Your task to perform on an android device: change the clock display to show seconds Image 0: 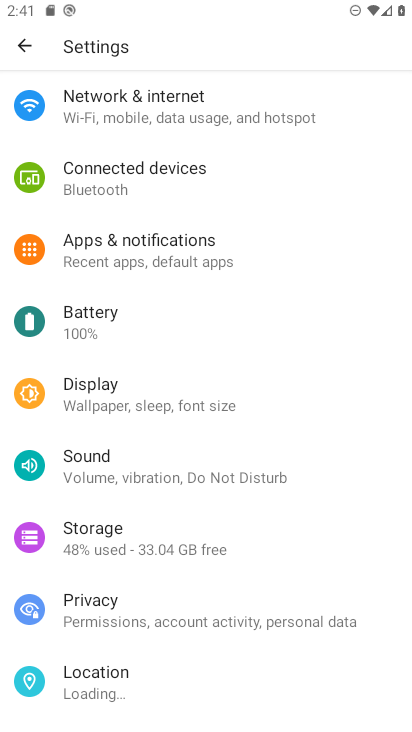
Step 0: press back button
Your task to perform on an android device: change the clock display to show seconds Image 1: 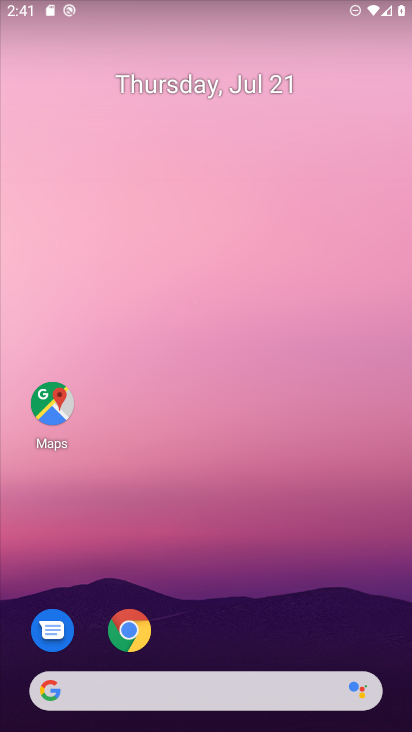
Step 1: drag from (195, 483) to (194, 63)
Your task to perform on an android device: change the clock display to show seconds Image 2: 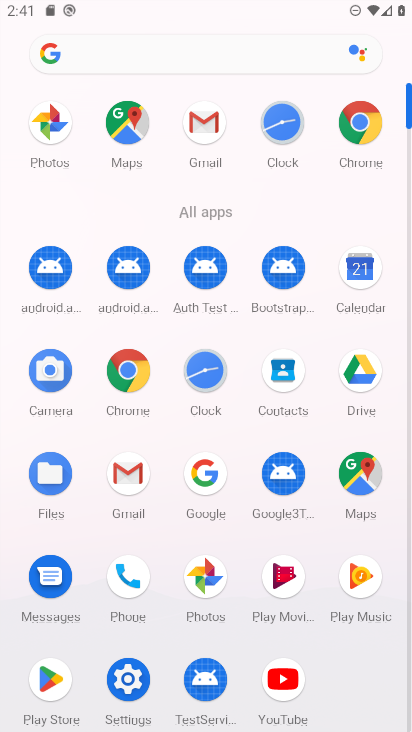
Step 2: click (278, 119)
Your task to perform on an android device: change the clock display to show seconds Image 3: 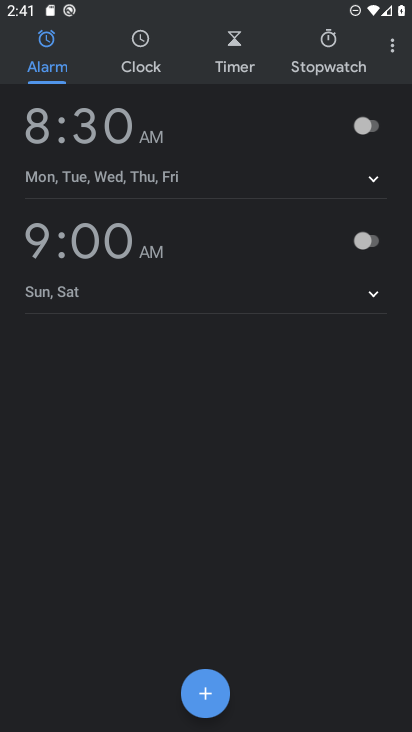
Step 3: click (389, 46)
Your task to perform on an android device: change the clock display to show seconds Image 4: 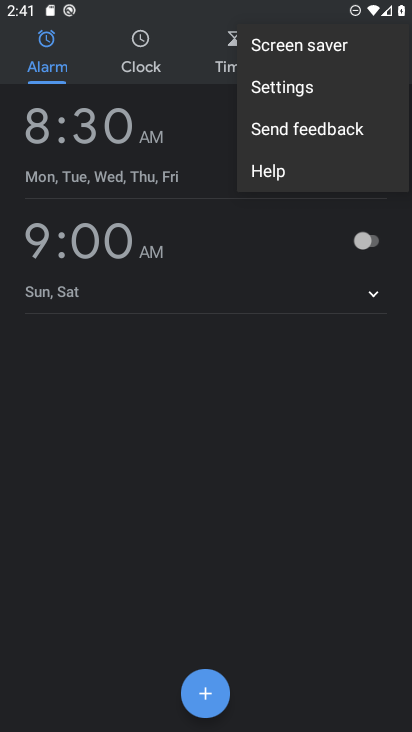
Step 4: click (295, 95)
Your task to perform on an android device: change the clock display to show seconds Image 5: 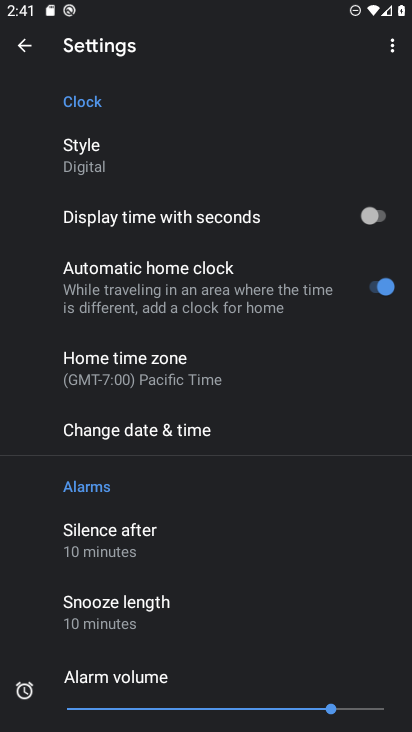
Step 5: click (376, 220)
Your task to perform on an android device: change the clock display to show seconds Image 6: 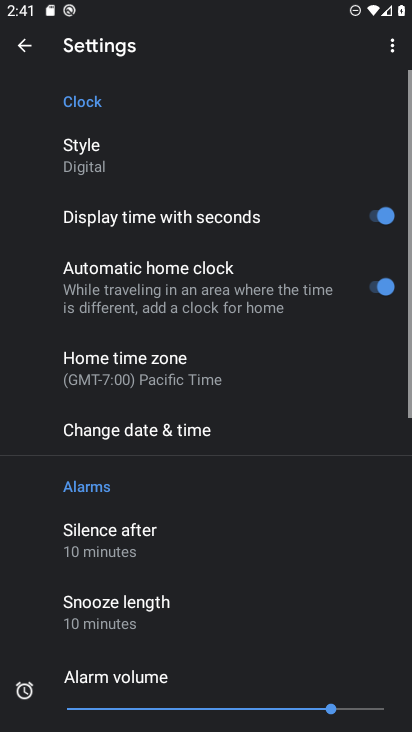
Step 6: click (139, 163)
Your task to perform on an android device: change the clock display to show seconds Image 7: 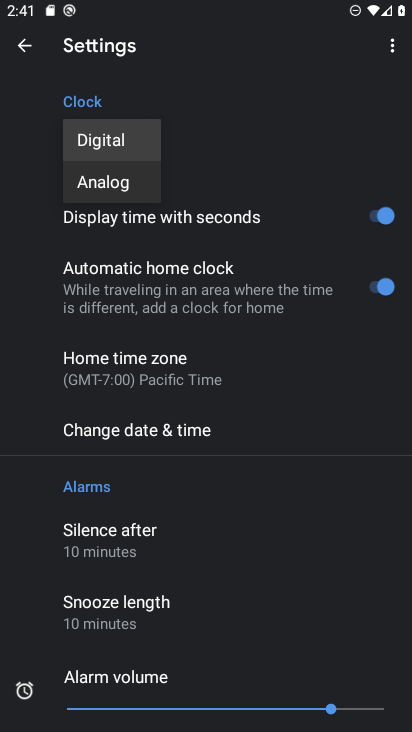
Step 7: click (107, 135)
Your task to perform on an android device: change the clock display to show seconds Image 8: 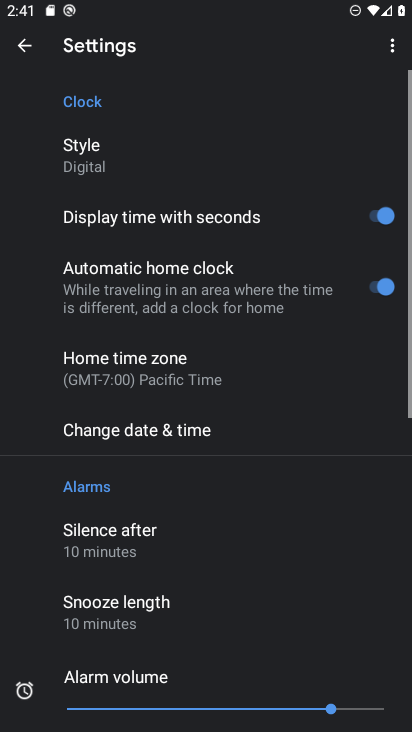
Step 8: task complete